Your task to perform on an android device: empty trash in google photos Image 0: 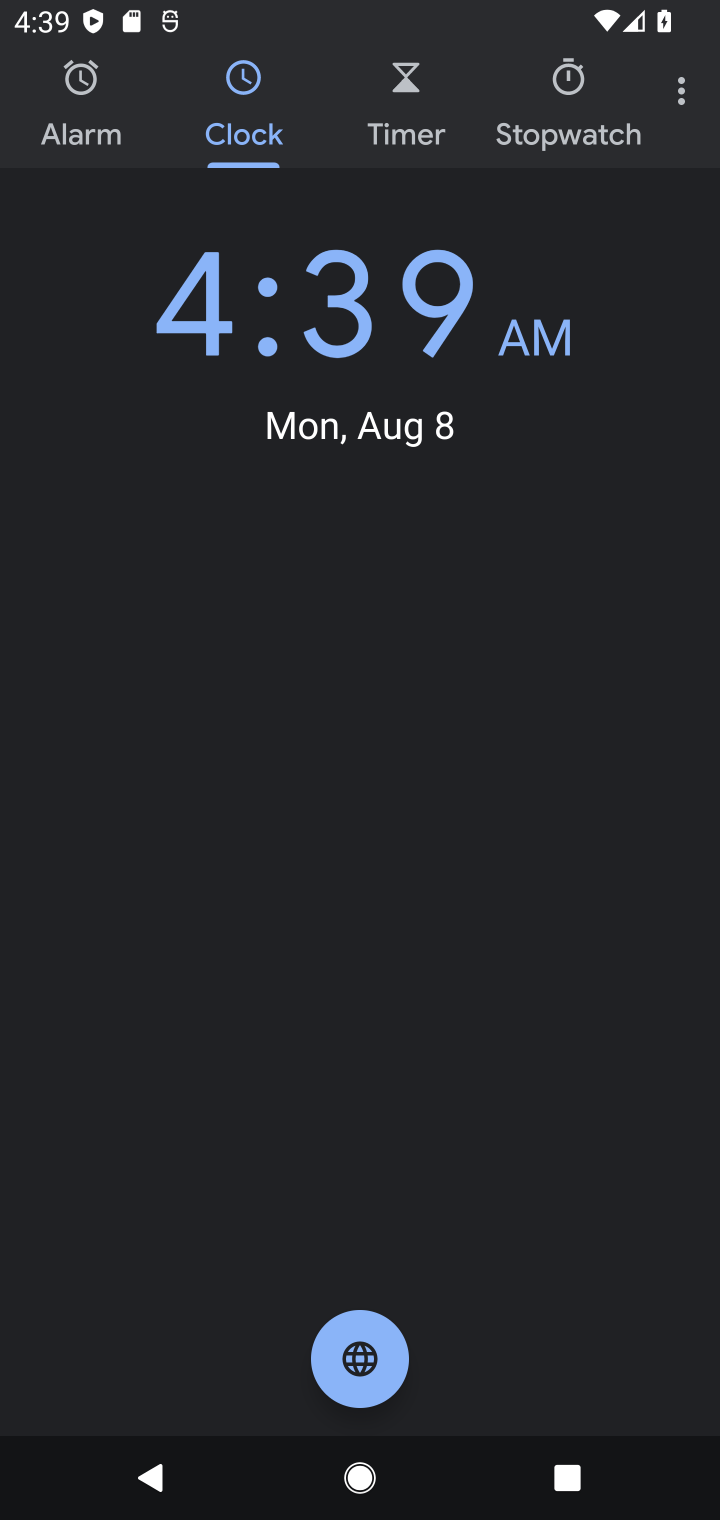
Step 0: press home button
Your task to perform on an android device: empty trash in google photos Image 1: 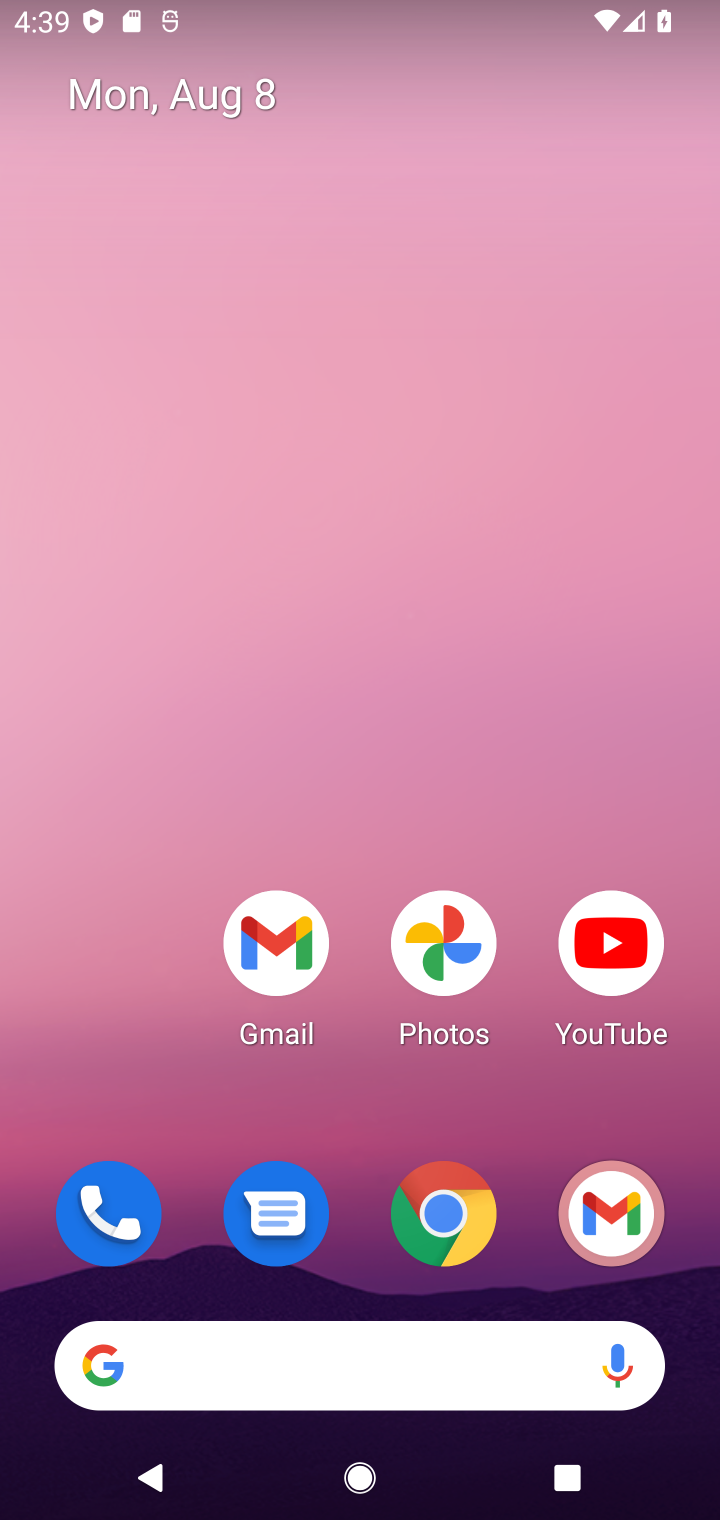
Step 1: click (437, 961)
Your task to perform on an android device: empty trash in google photos Image 2: 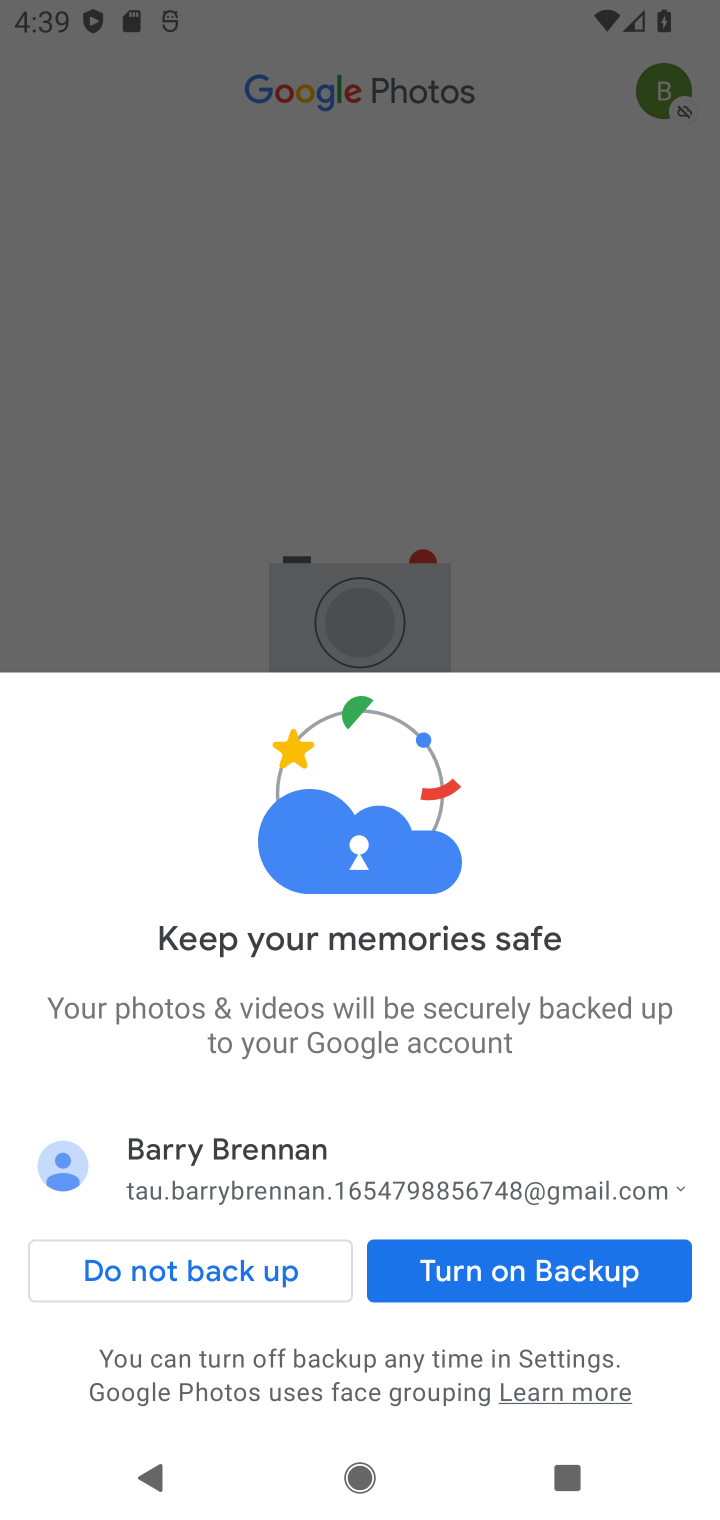
Step 2: click (179, 1266)
Your task to perform on an android device: empty trash in google photos Image 3: 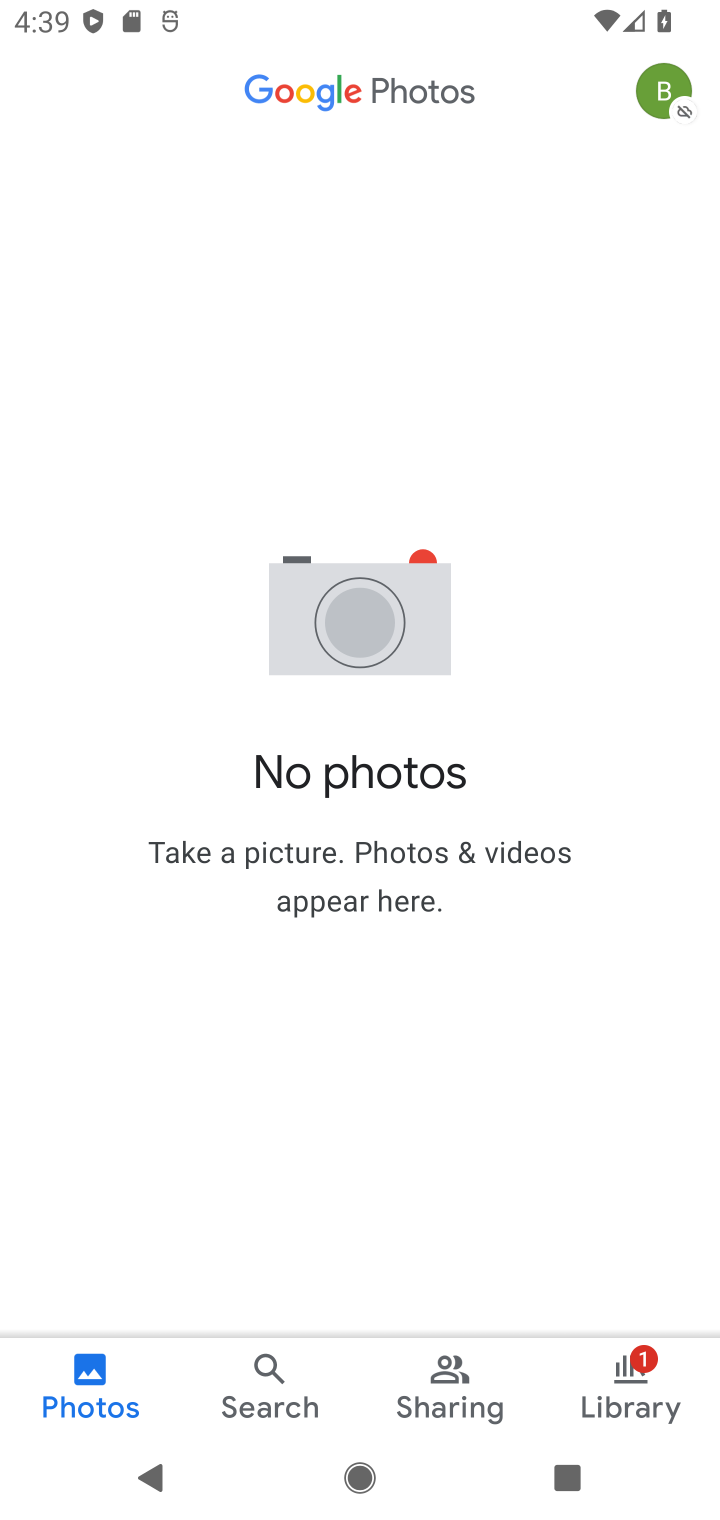
Step 3: click (608, 1373)
Your task to perform on an android device: empty trash in google photos Image 4: 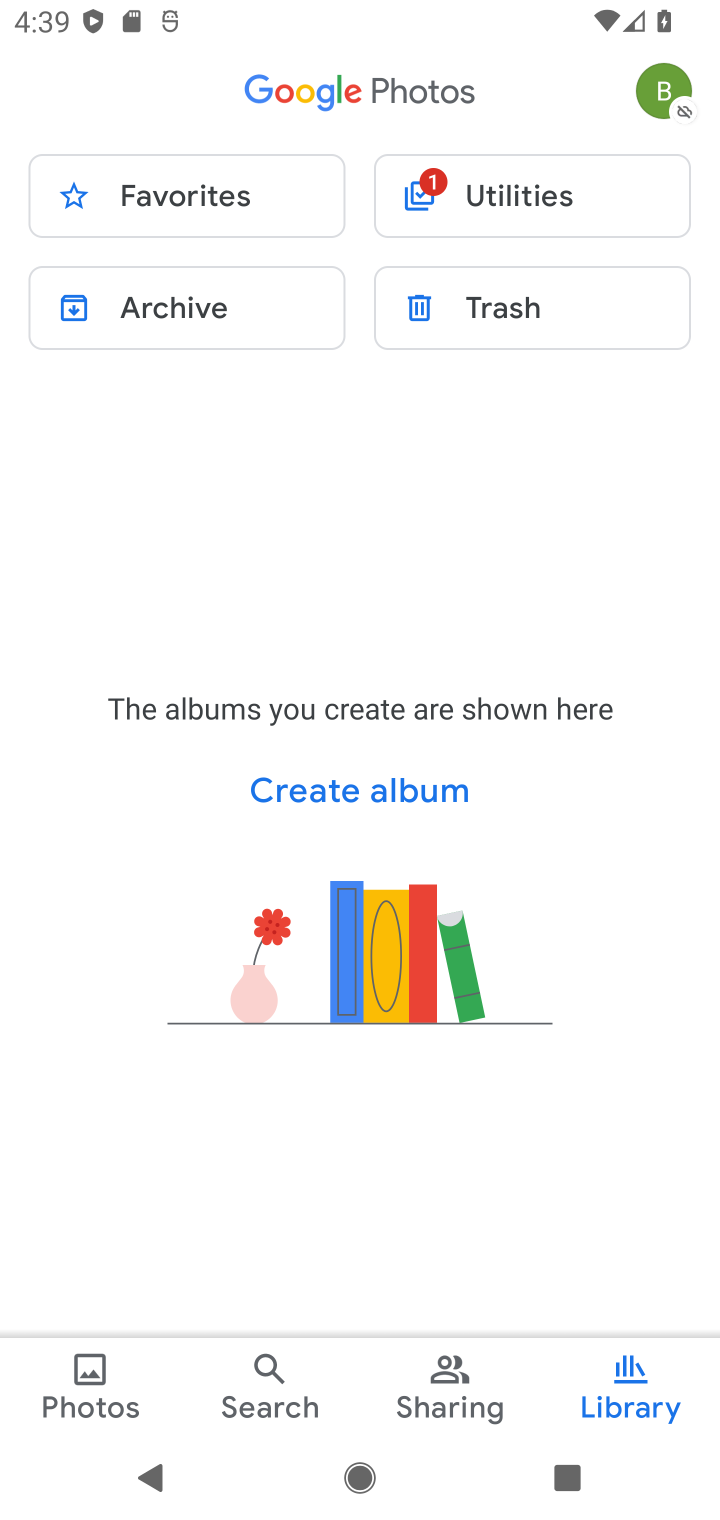
Step 4: click (522, 293)
Your task to perform on an android device: empty trash in google photos Image 5: 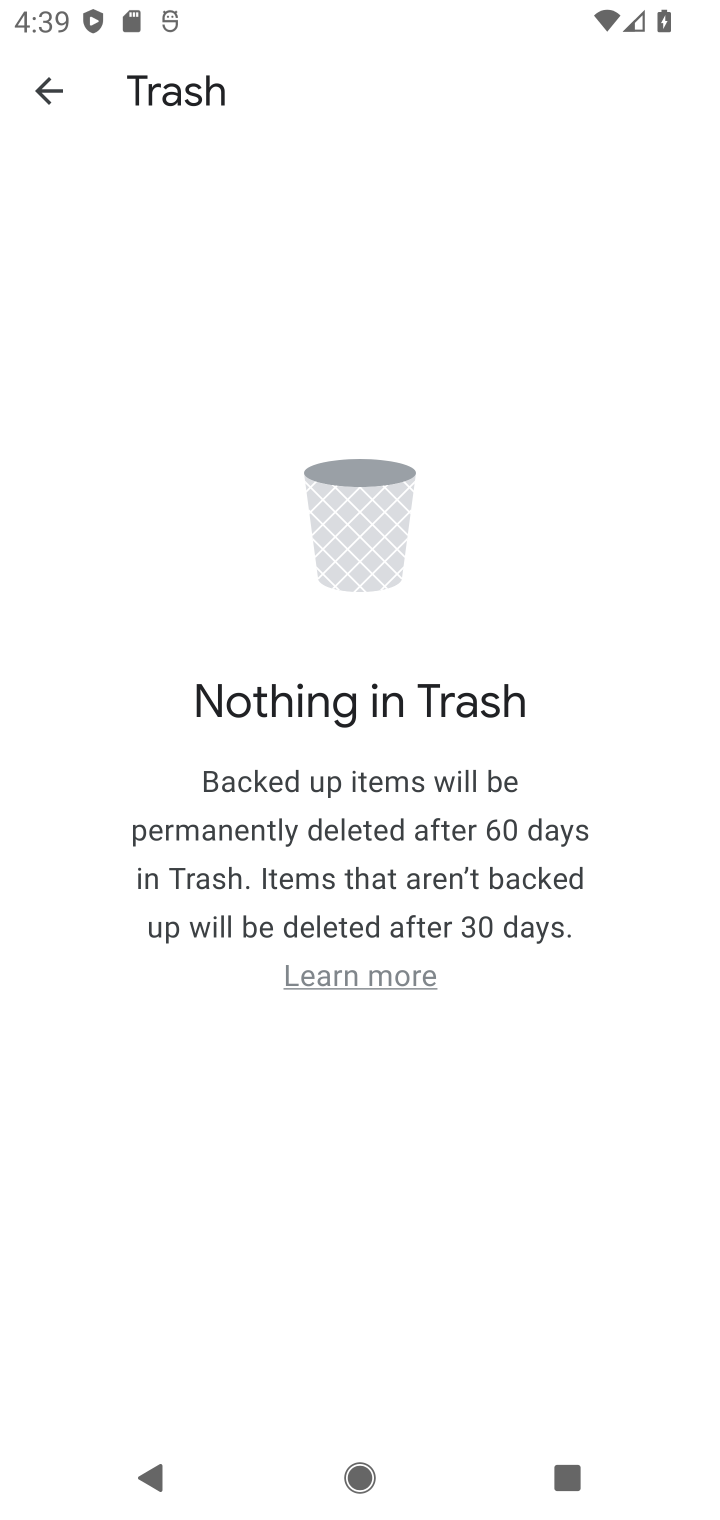
Step 5: task complete